Your task to perform on an android device: turn on sleep mode Image 0: 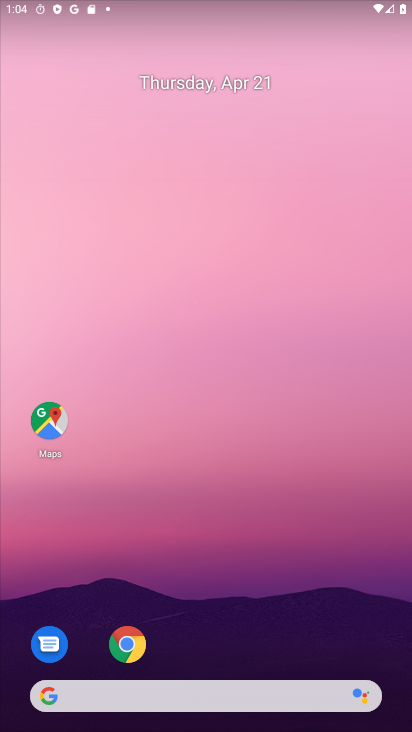
Step 0: drag from (307, 589) to (283, 170)
Your task to perform on an android device: turn on sleep mode Image 1: 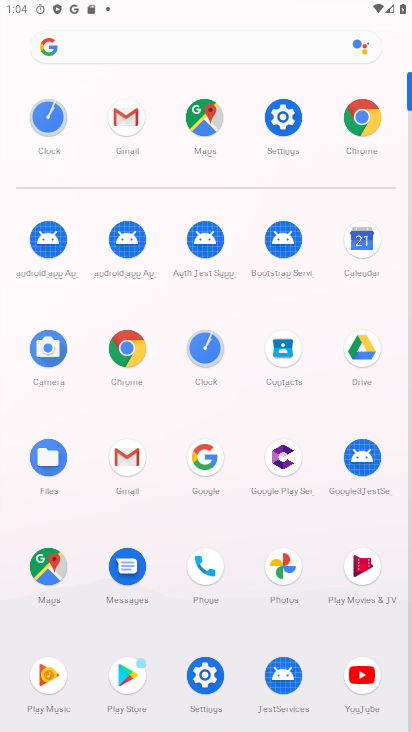
Step 1: click (280, 128)
Your task to perform on an android device: turn on sleep mode Image 2: 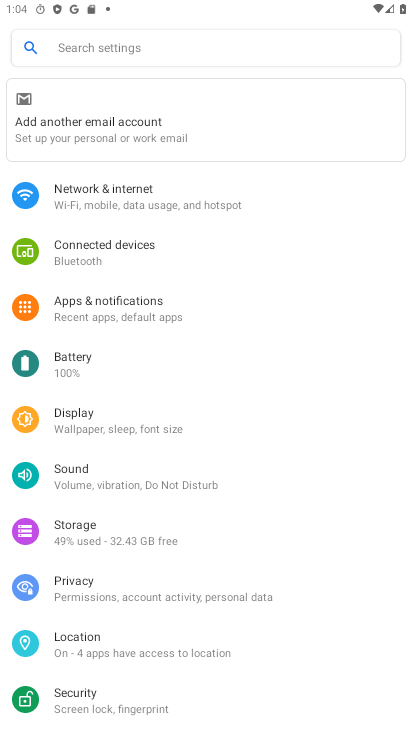
Step 2: click (231, 428)
Your task to perform on an android device: turn on sleep mode Image 3: 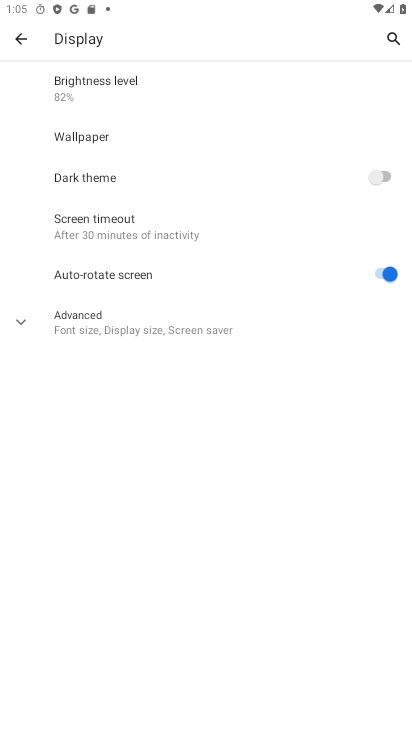
Step 3: click (234, 326)
Your task to perform on an android device: turn on sleep mode Image 4: 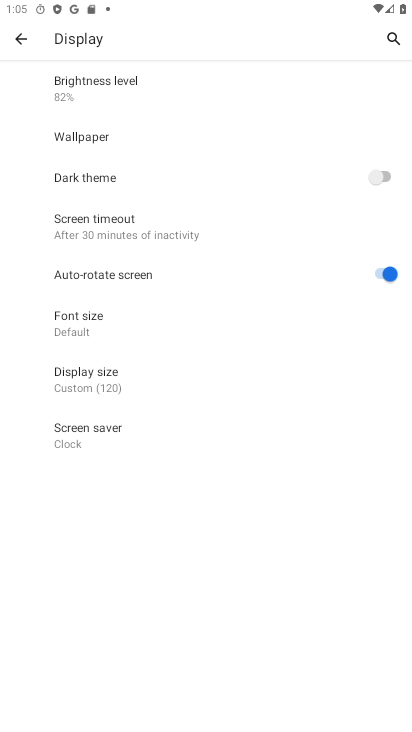
Step 4: task complete